Your task to perform on an android device: Open notification settings Image 0: 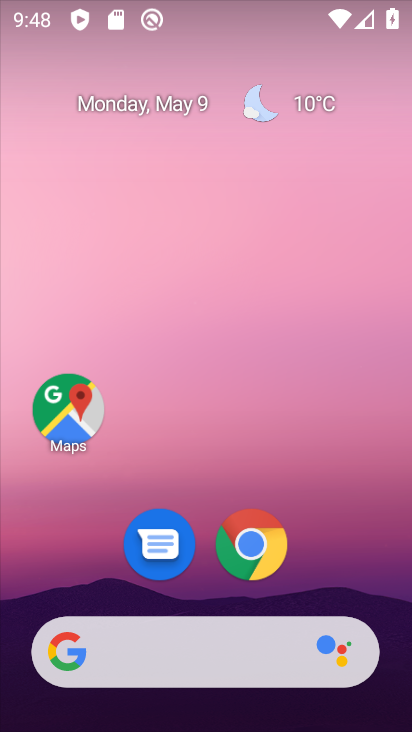
Step 0: drag from (384, 454) to (379, 354)
Your task to perform on an android device: Open notification settings Image 1: 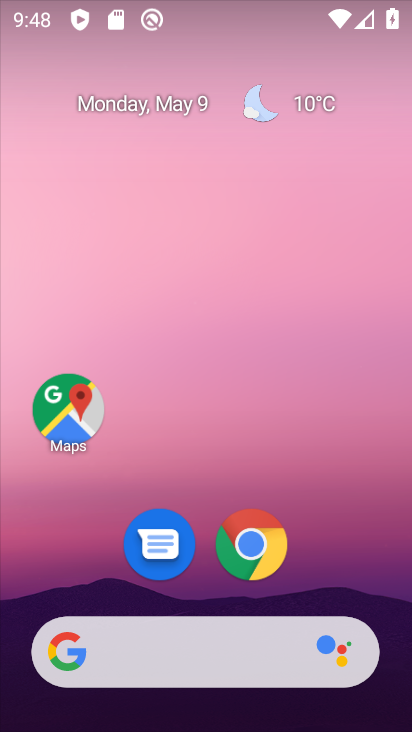
Step 1: click (362, 289)
Your task to perform on an android device: Open notification settings Image 2: 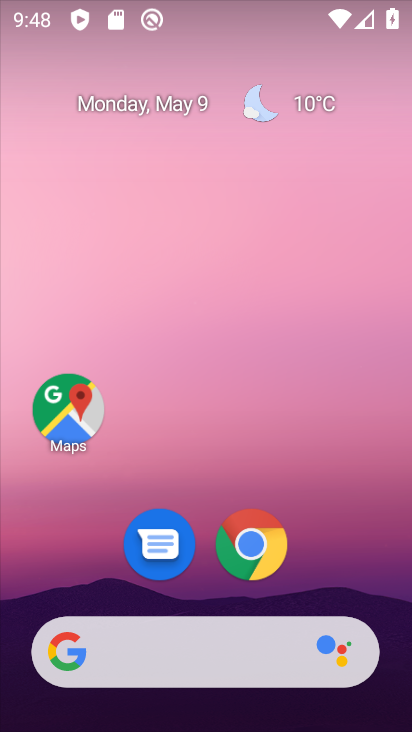
Step 2: drag from (386, 532) to (360, 249)
Your task to perform on an android device: Open notification settings Image 3: 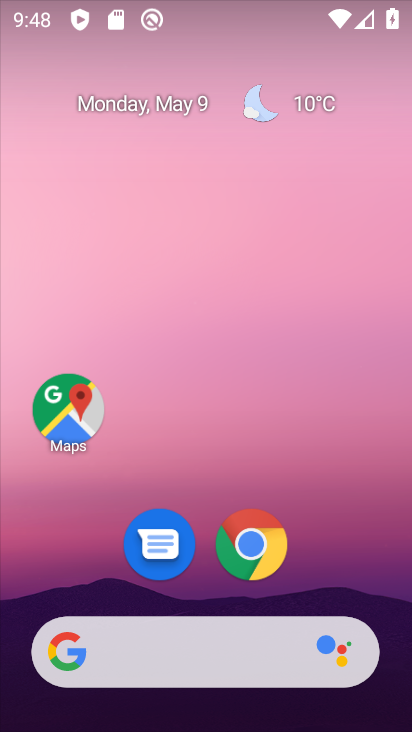
Step 3: drag from (396, 564) to (376, 176)
Your task to perform on an android device: Open notification settings Image 4: 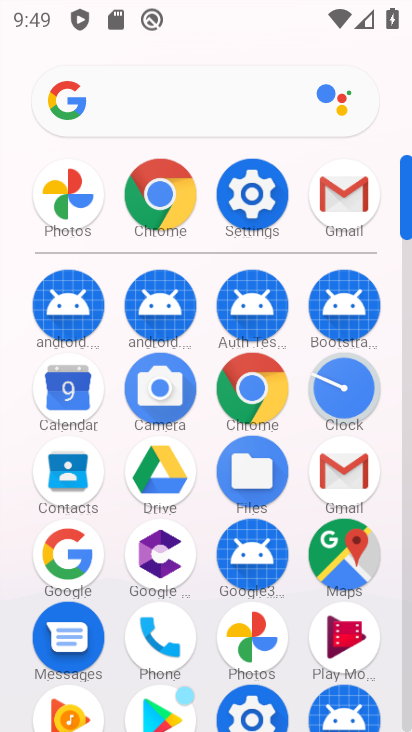
Step 4: click (260, 201)
Your task to perform on an android device: Open notification settings Image 5: 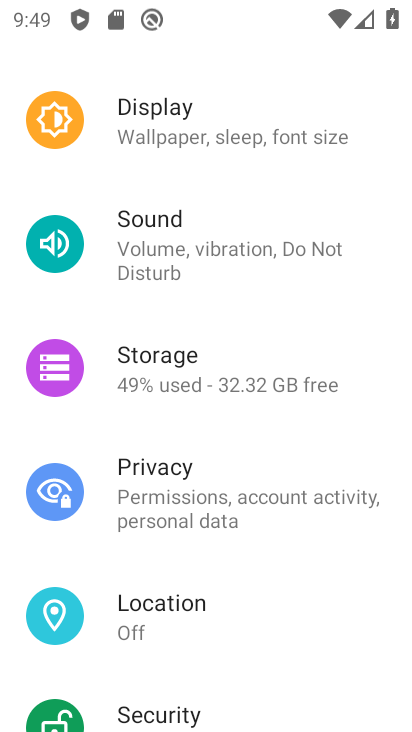
Step 5: drag from (388, 159) to (393, 489)
Your task to perform on an android device: Open notification settings Image 6: 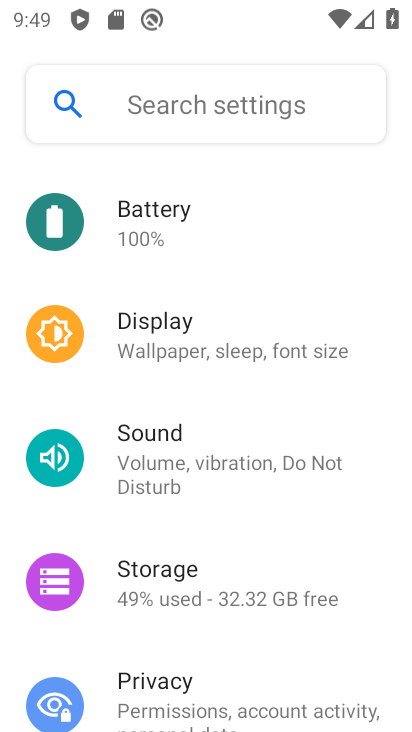
Step 6: drag from (343, 282) to (344, 441)
Your task to perform on an android device: Open notification settings Image 7: 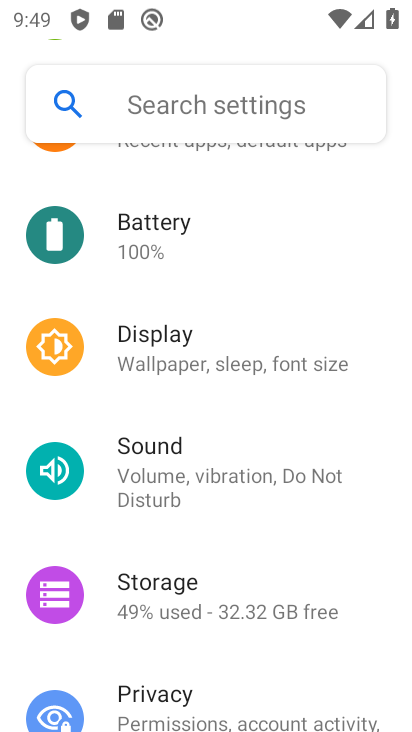
Step 7: drag from (349, 200) to (376, 519)
Your task to perform on an android device: Open notification settings Image 8: 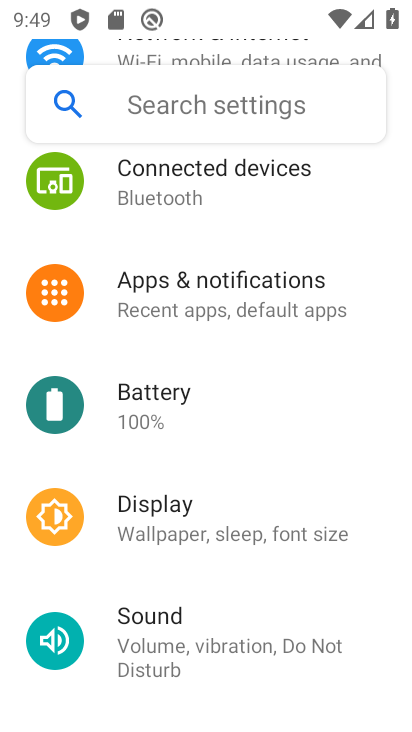
Step 8: click (195, 294)
Your task to perform on an android device: Open notification settings Image 9: 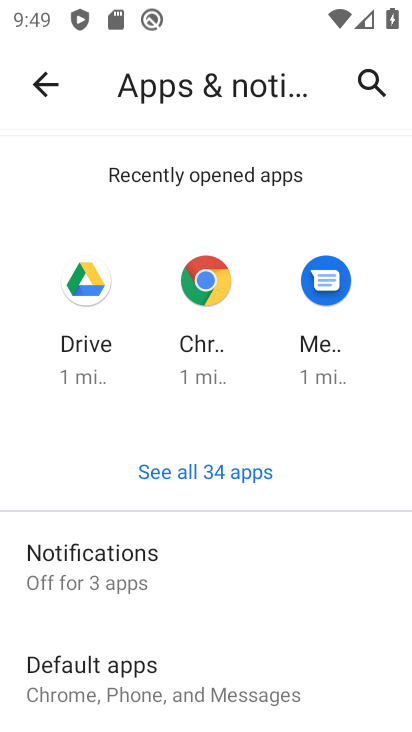
Step 9: click (40, 563)
Your task to perform on an android device: Open notification settings Image 10: 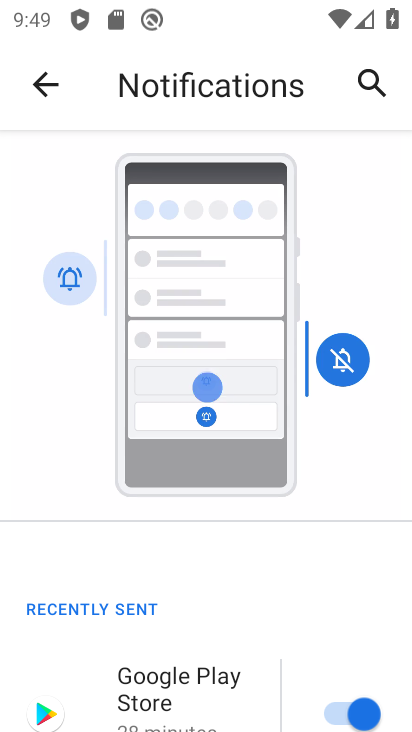
Step 10: drag from (263, 663) to (247, 367)
Your task to perform on an android device: Open notification settings Image 11: 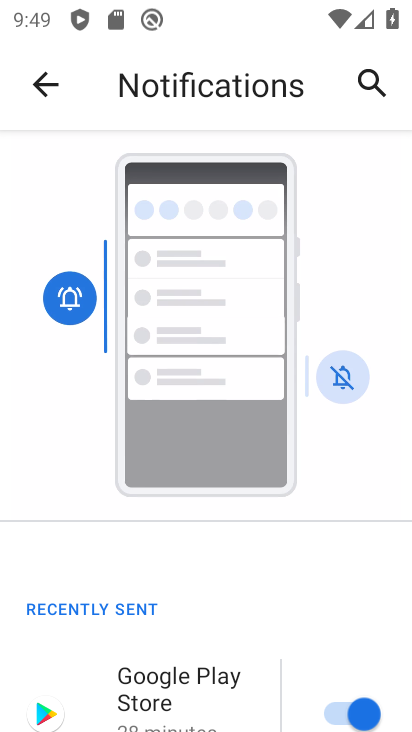
Step 11: drag from (273, 682) to (232, 427)
Your task to perform on an android device: Open notification settings Image 12: 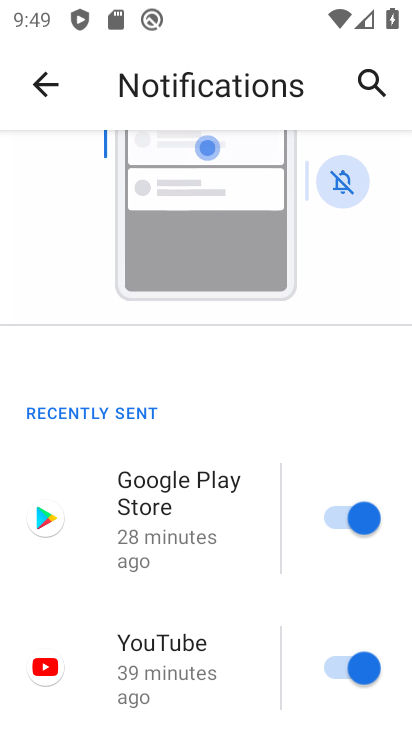
Step 12: drag from (259, 691) to (228, 498)
Your task to perform on an android device: Open notification settings Image 13: 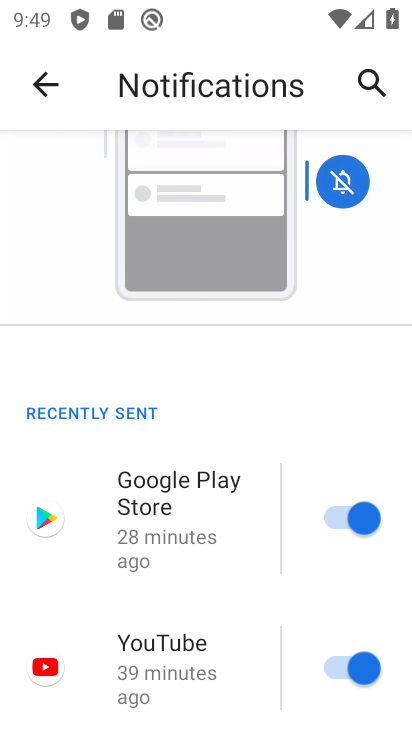
Step 13: drag from (268, 717) to (285, 293)
Your task to perform on an android device: Open notification settings Image 14: 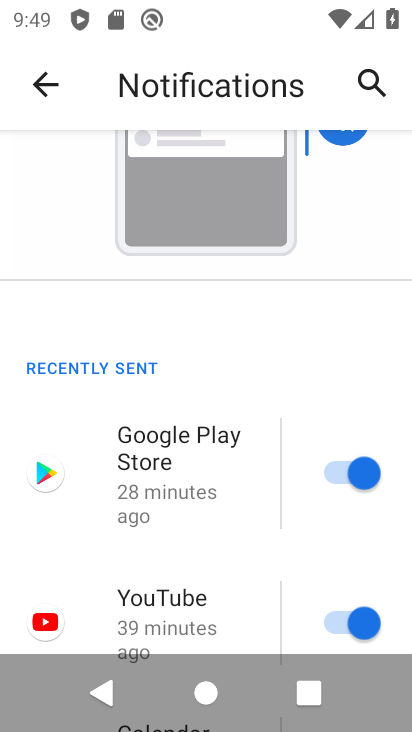
Step 14: drag from (276, 621) to (255, 307)
Your task to perform on an android device: Open notification settings Image 15: 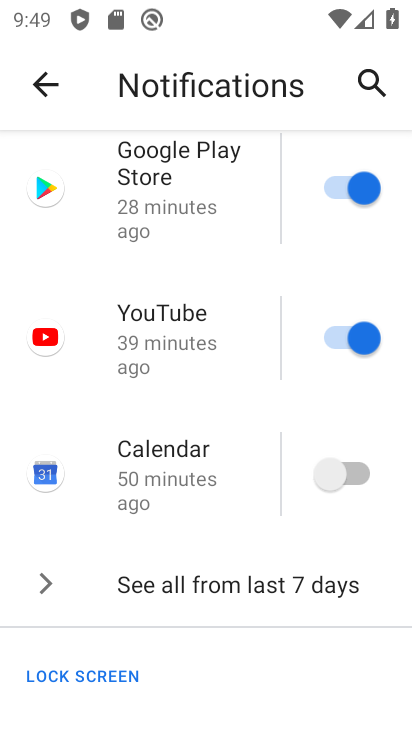
Step 15: drag from (245, 541) to (257, 308)
Your task to perform on an android device: Open notification settings Image 16: 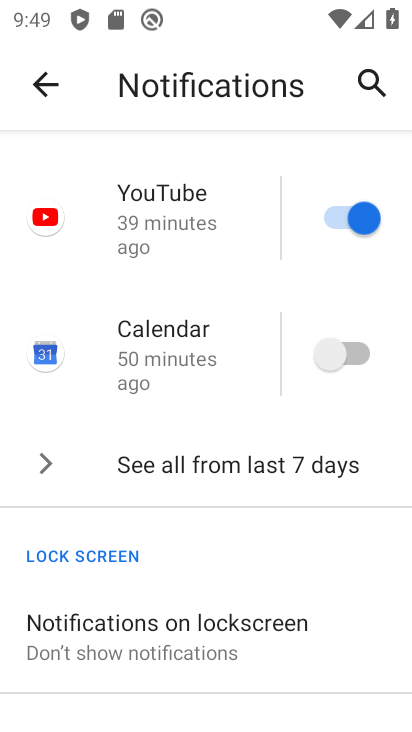
Step 16: click (153, 634)
Your task to perform on an android device: Open notification settings Image 17: 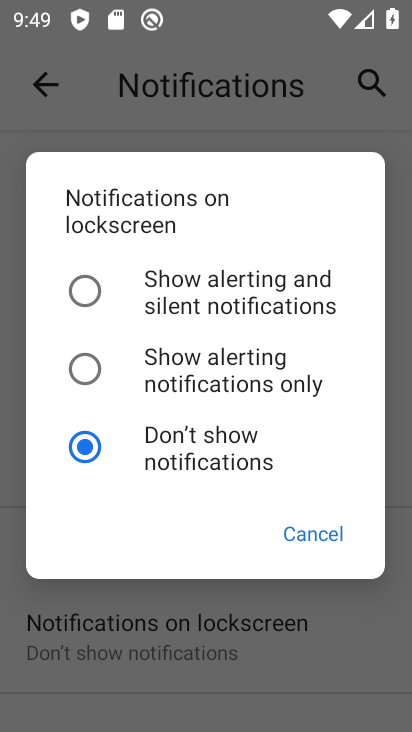
Step 17: click (201, 637)
Your task to perform on an android device: Open notification settings Image 18: 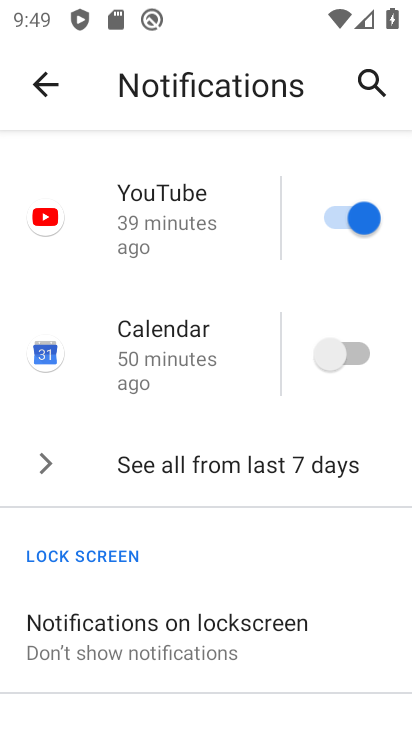
Step 18: press back button
Your task to perform on an android device: Open notification settings Image 19: 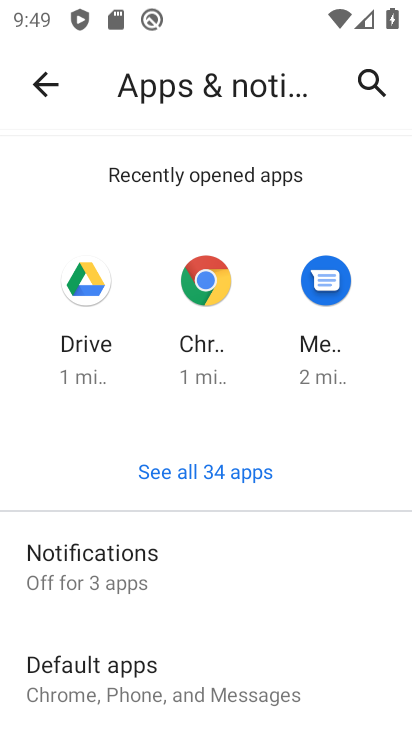
Step 19: click (135, 564)
Your task to perform on an android device: Open notification settings Image 20: 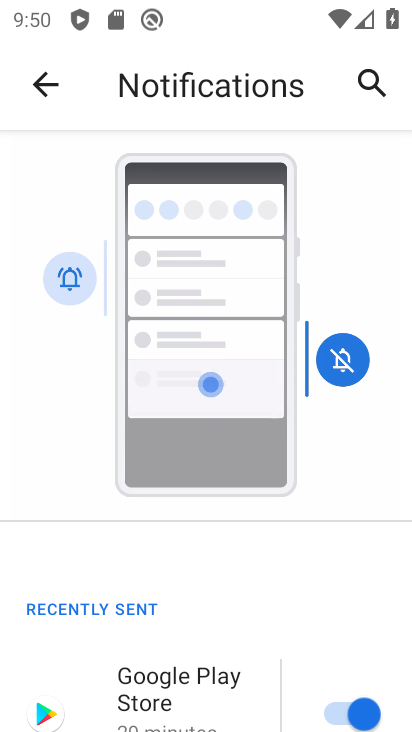
Step 20: task complete